Your task to perform on an android device: Show me recent news Image 0: 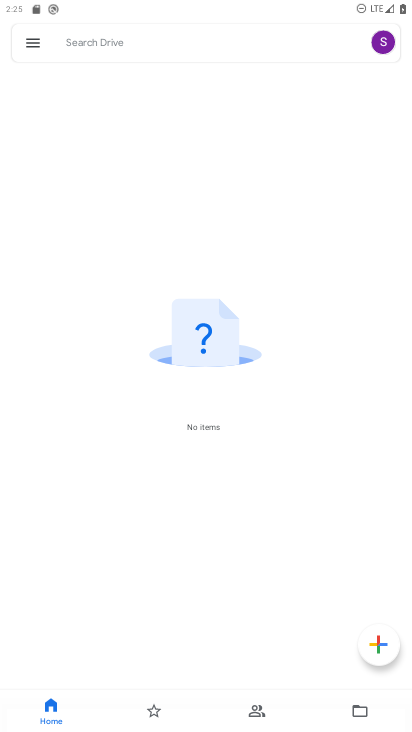
Step 0: press home button
Your task to perform on an android device: Show me recent news Image 1: 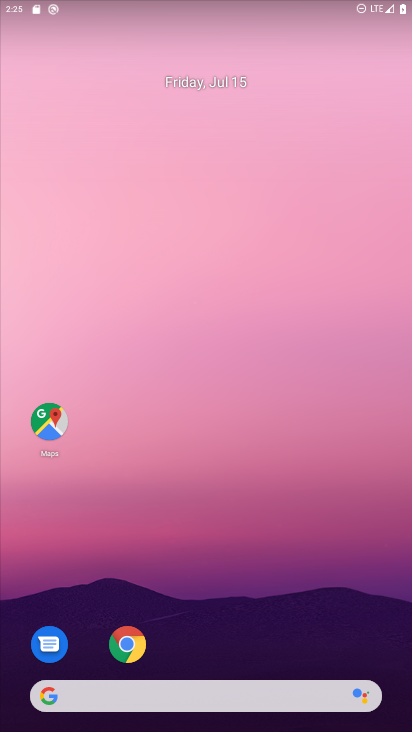
Step 1: click (181, 689)
Your task to perform on an android device: Show me recent news Image 2: 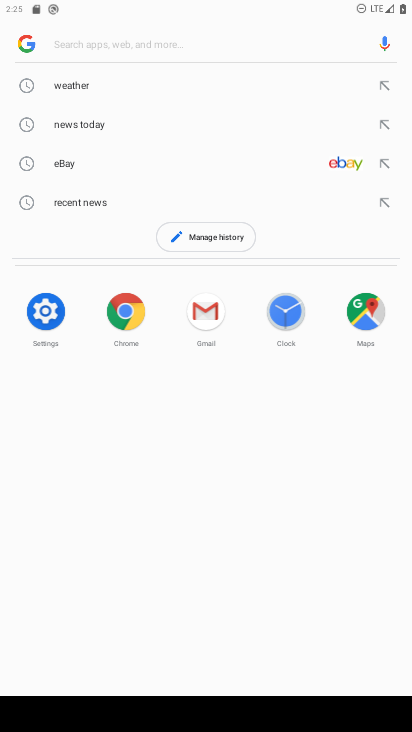
Step 2: click (81, 201)
Your task to perform on an android device: Show me recent news Image 3: 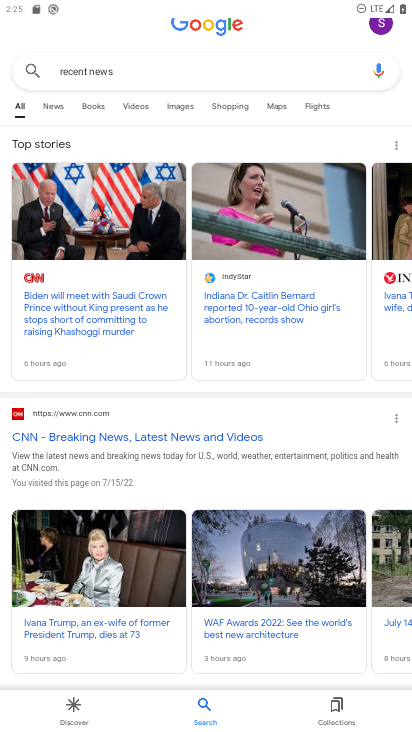
Step 3: task complete